Your task to perform on an android device: Do I have any events today? Image 0: 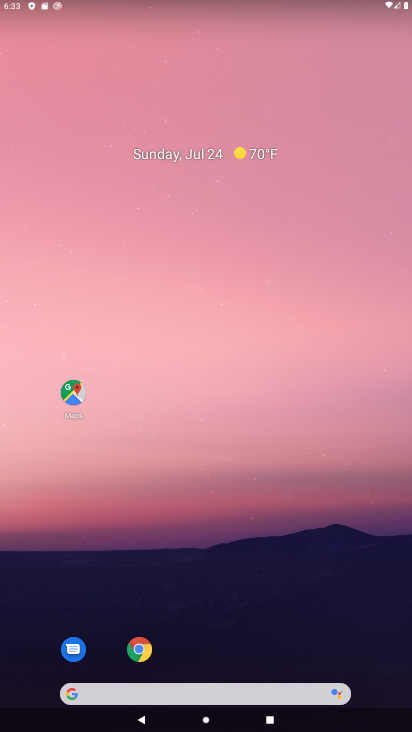
Step 0: drag from (224, 563) to (194, 79)
Your task to perform on an android device: Do I have any events today? Image 1: 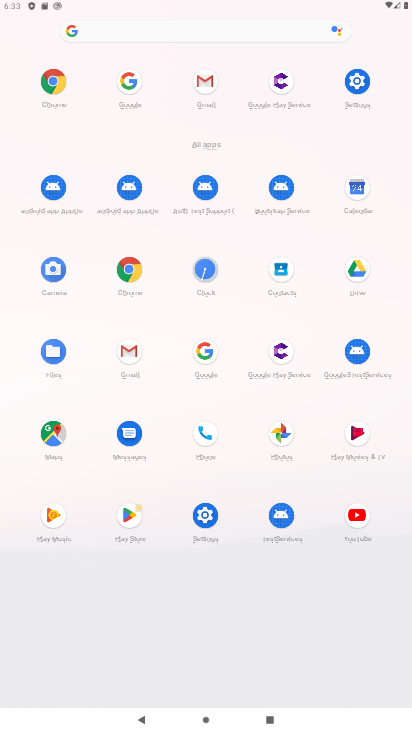
Step 1: click (352, 189)
Your task to perform on an android device: Do I have any events today? Image 2: 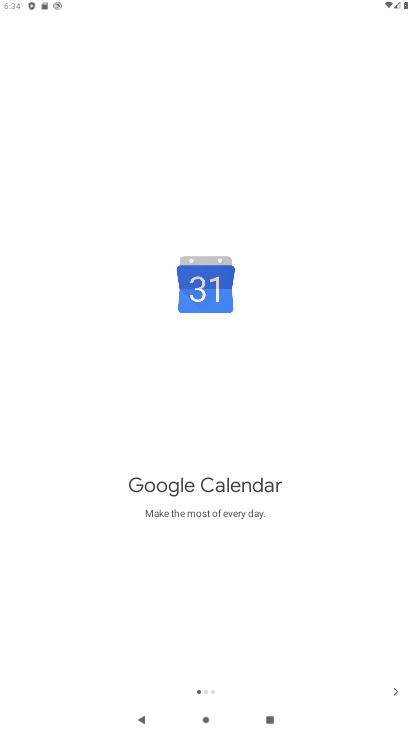
Step 2: click (391, 692)
Your task to perform on an android device: Do I have any events today? Image 3: 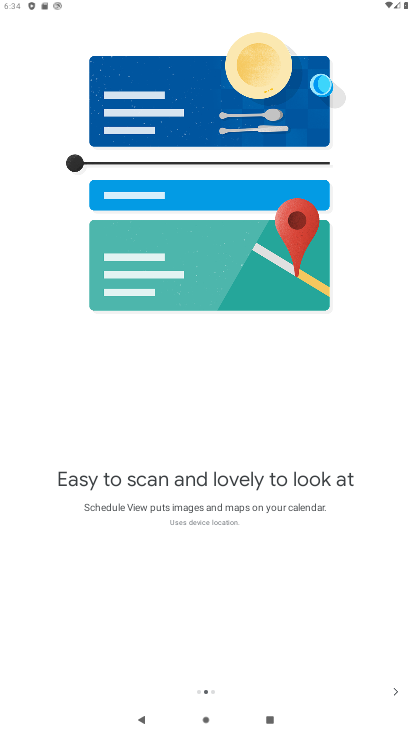
Step 3: click (391, 692)
Your task to perform on an android device: Do I have any events today? Image 4: 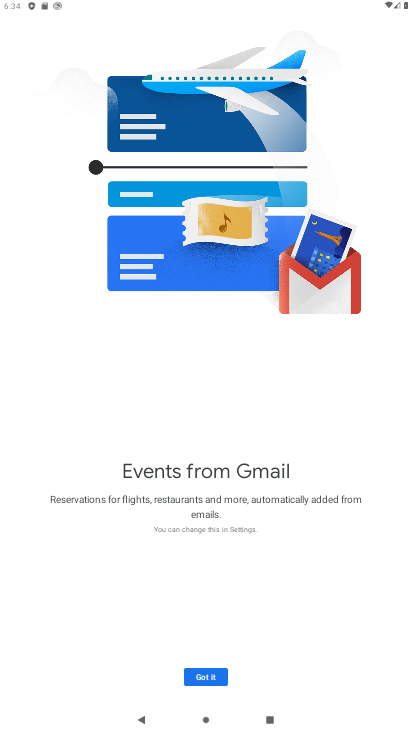
Step 4: click (195, 673)
Your task to perform on an android device: Do I have any events today? Image 5: 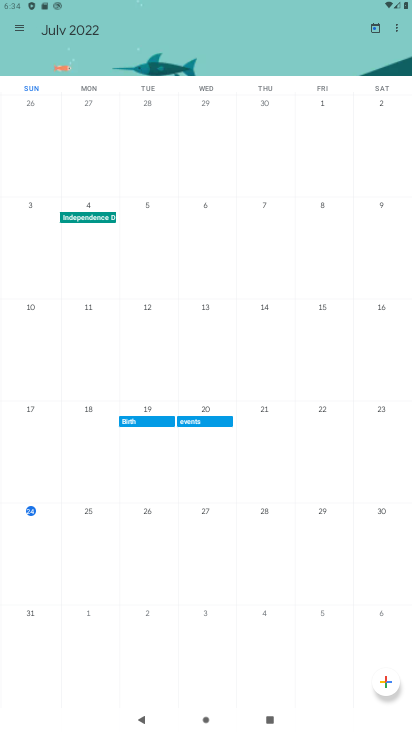
Step 5: click (28, 509)
Your task to perform on an android device: Do I have any events today? Image 6: 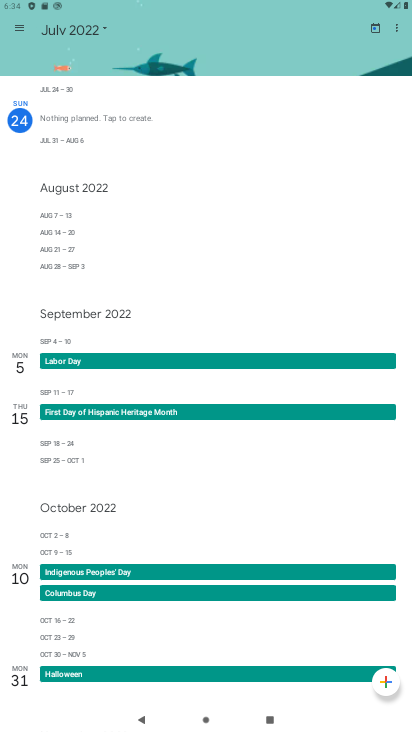
Step 6: task complete